Your task to perform on an android device: set an alarm Image 0: 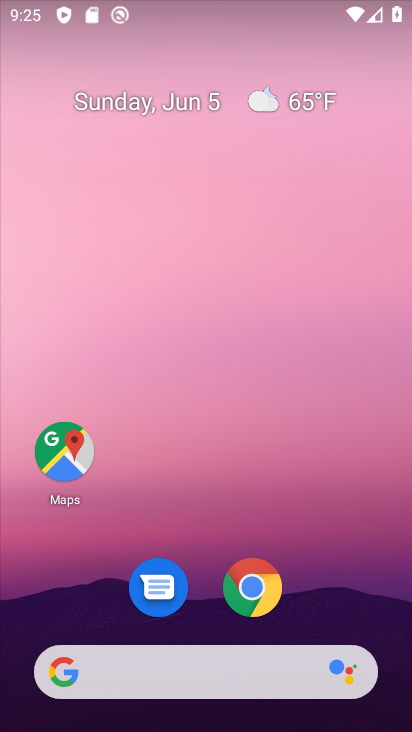
Step 0: drag from (109, 573) to (213, 135)
Your task to perform on an android device: set an alarm Image 1: 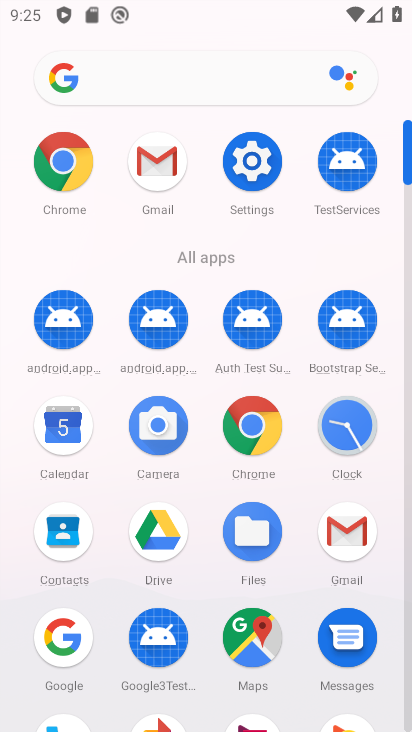
Step 1: click (362, 437)
Your task to perform on an android device: set an alarm Image 2: 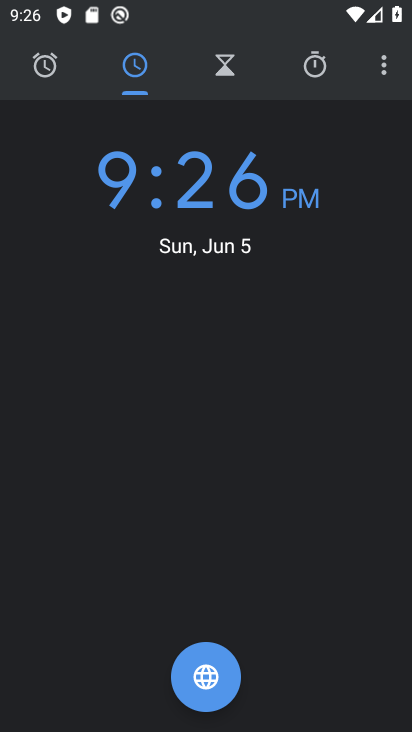
Step 2: click (62, 82)
Your task to perform on an android device: set an alarm Image 3: 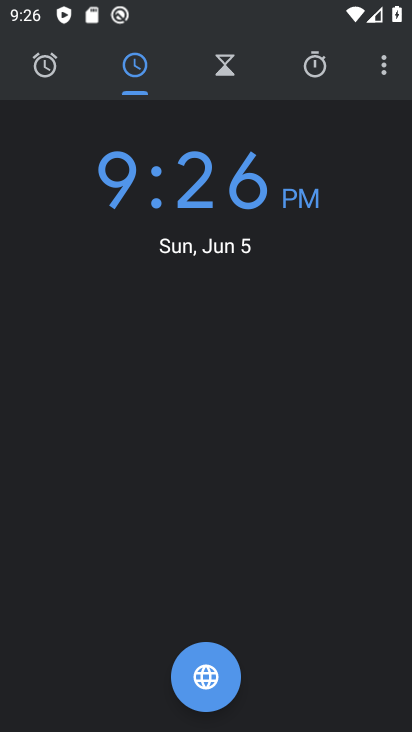
Step 3: click (71, 80)
Your task to perform on an android device: set an alarm Image 4: 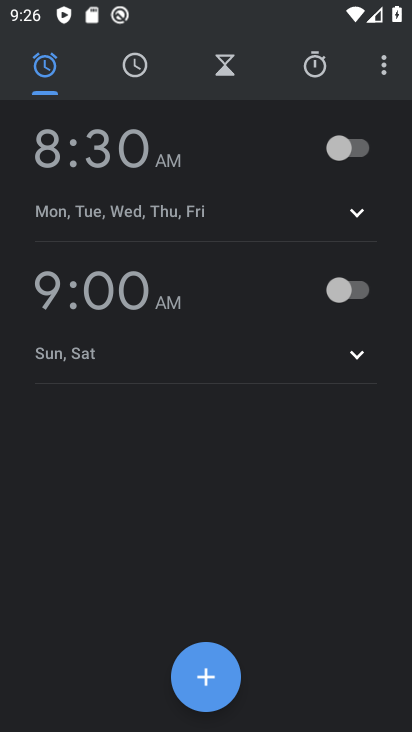
Step 4: click (375, 271)
Your task to perform on an android device: set an alarm Image 5: 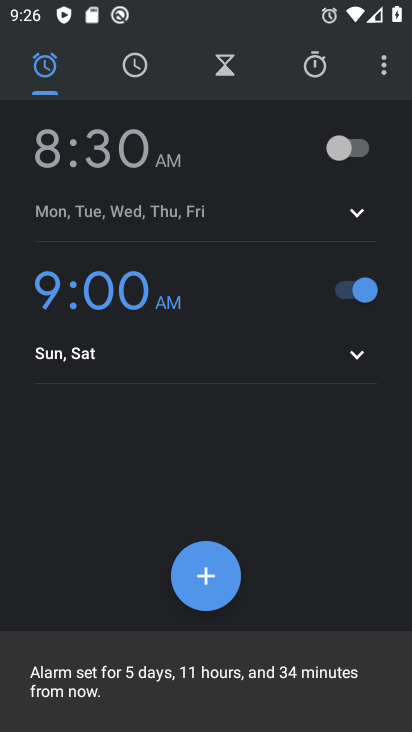
Step 5: task complete